Your task to perform on an android device: open a bookmark in the chrome app Image 0: 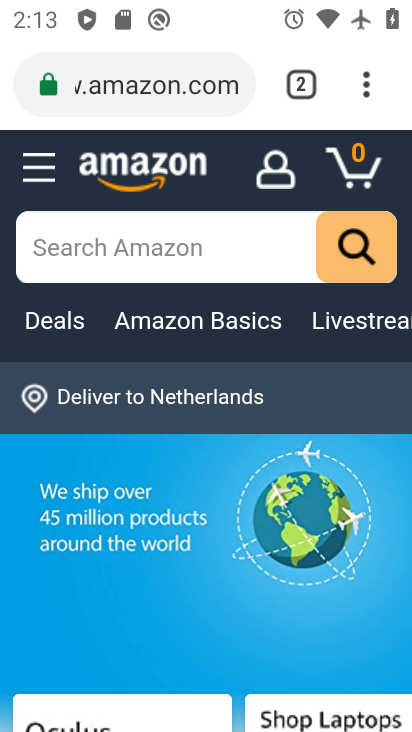
Step 0: click (364, 86)
Your task to perform on an android device: open a bookmark in the chrome app Image 1: 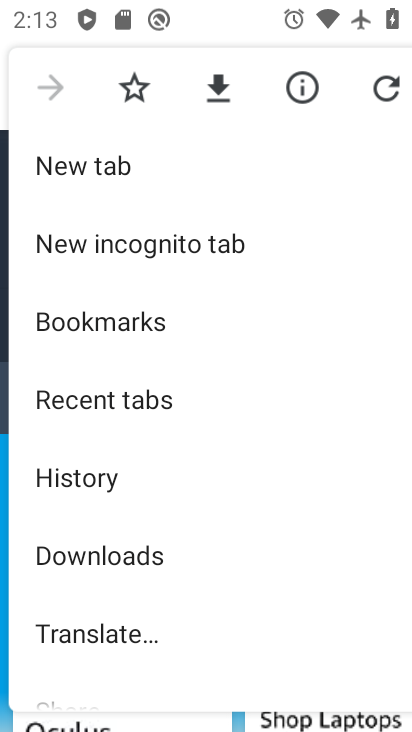
Step 1: click (113, 318)
Your task to perform on an android device: open a bookmark in the chrome app Image 2: 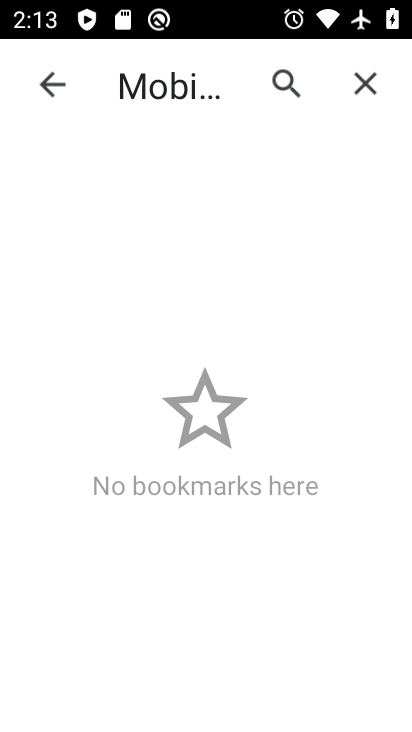
Step 2: task complete